Your task to perform on an android device: Search for Italian restaurants on Maps Image 0: 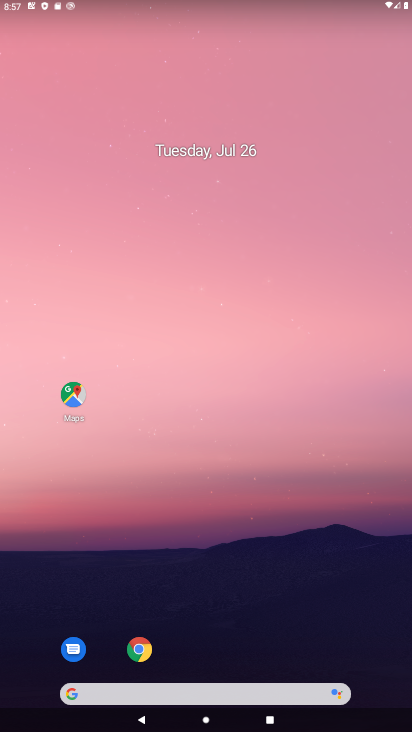
Step 0: drag from (201, 644) to (219, 222)
Your task to perform on an android device: Search for Italian restaurants on Maps Image 1: 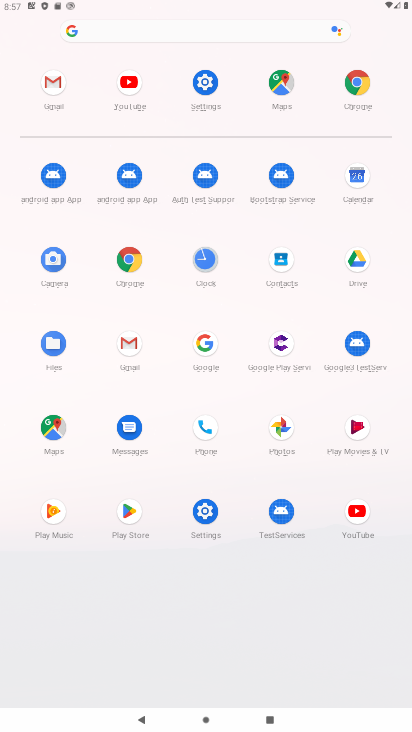
Step 1: click (48, 433)
Your task to perform on an android device: Search for Italian restaurants on Maps Image 2: 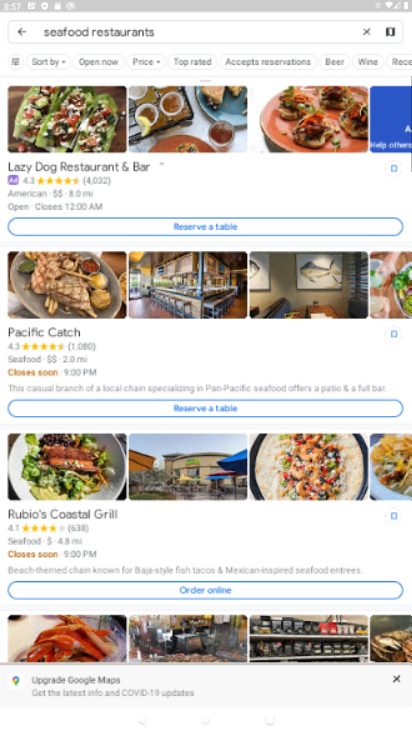
Step 2: drag from (319, 189) to (242, 689)
Your task to perform on an android device: Search for Italian restaurants on Maps Image 3: 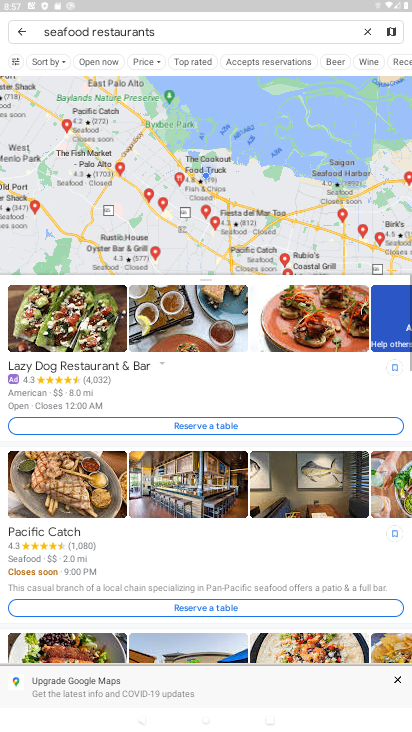
Step 3: click (362, 33)
Your task to perform on an android device: Search for Italian restaurants on Maps Image 4: 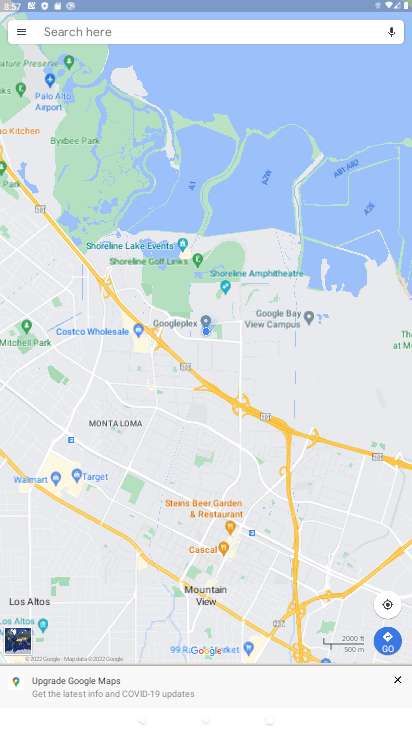
Step 4: click (54, 33)
Your task to perform on an android device: Search for Italian restaurants on Maps Image 5: 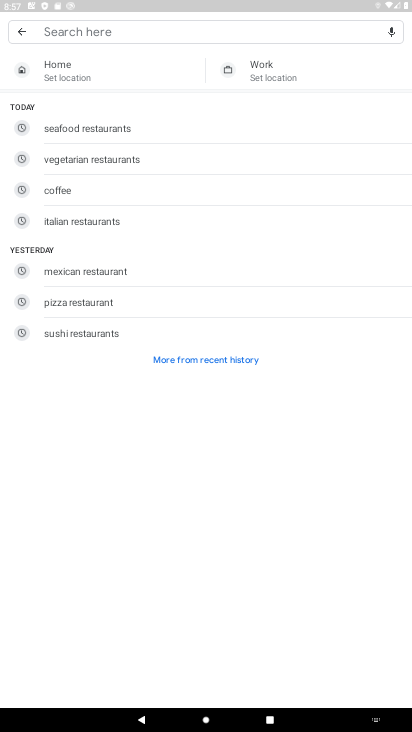
Step 5: click (66, 217)
Your task to perform on an android device: Search for Italian restaurants on Maps Image 6: 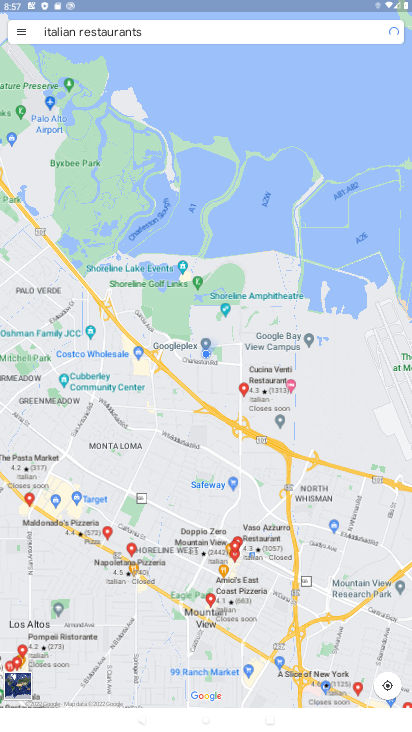
Step 6: task complete